Your task to perform on an android device: stop showing notifications on the lock screen Image 0: 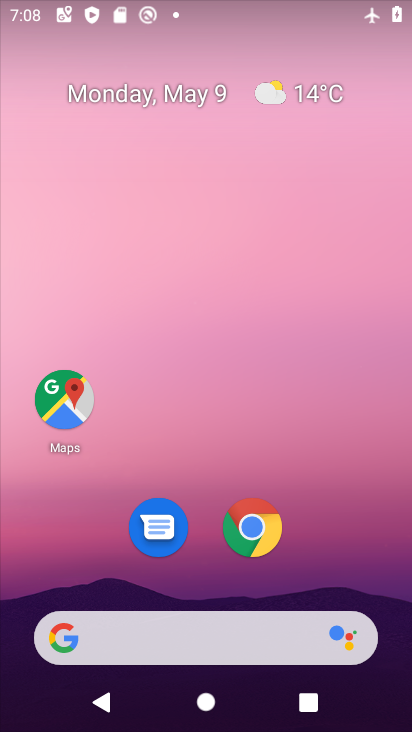
Step 0: drag from (325, 581) to (254, 4)
Your task to perform on an android device: stop showing notifications on the lock screen Image 1: 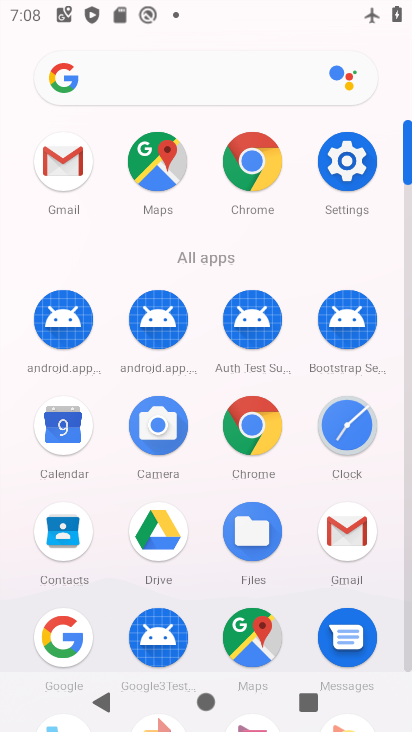
Step 1: click (349, 160)
Your task to perform on an android device: stop showing notifications on the lock screen Image 2: 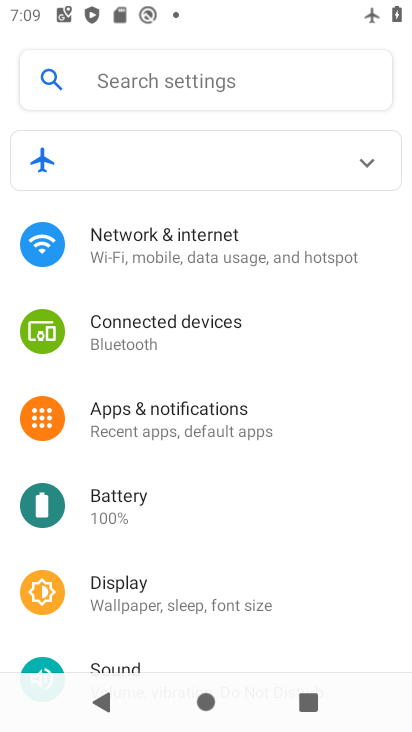
Step 2: click (171, 416)
Your task to perform on an android device: stop showing notifications on the lock screen Image 3: 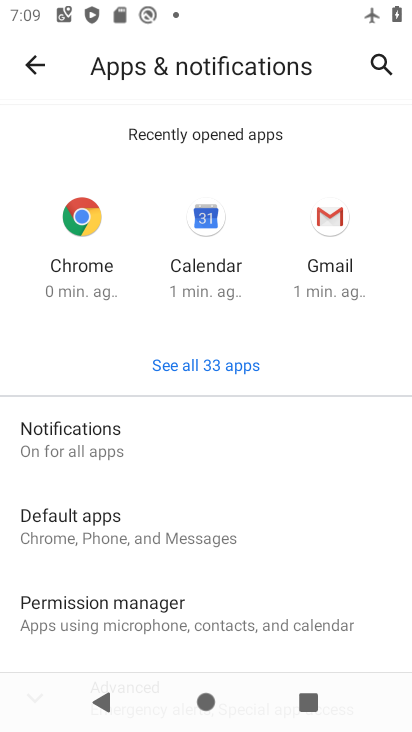
Step 3: click (97, 425)
Your task to perform on an android device: stop showing notifications on the lock screen Image 4: 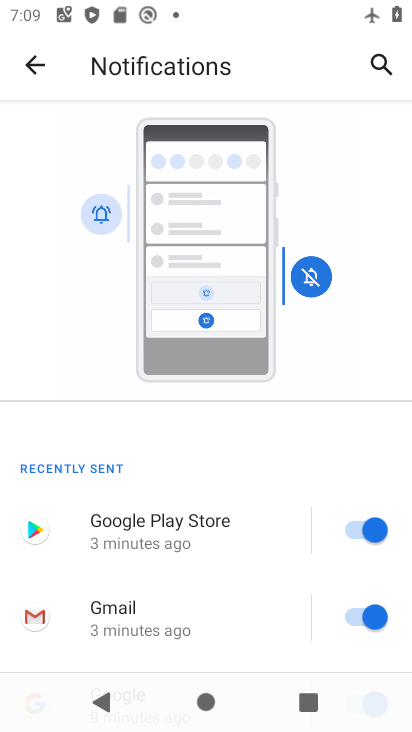
Step 4: drag from (180, 572) to (216, 439)
Your task to perform on an android device: stop showing notifications on the lock screen Image 5: 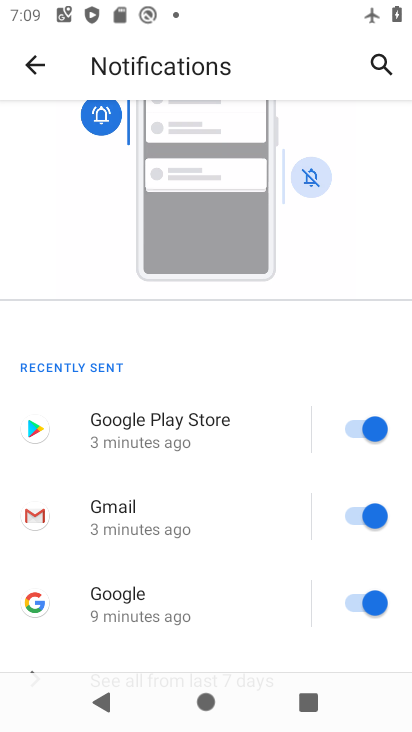
Step 5: drag from (176, 584) to (211, 445)
Your task to perform on an android device: stop showing notifications on the lock screen Image 6: 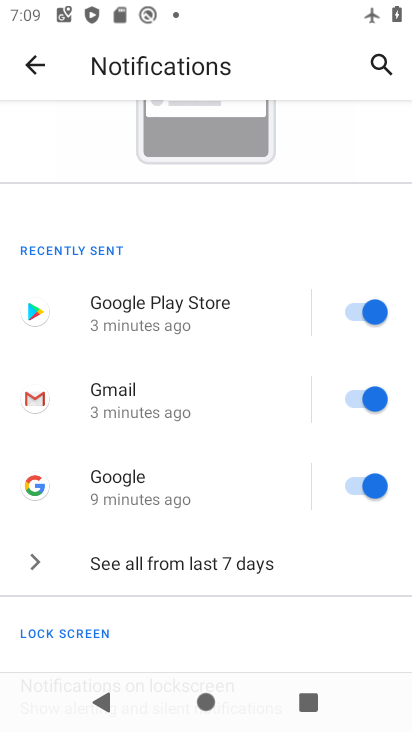
Step 6: drag from (154, 621) to (186, 507)
Your task to perform on an android device: stop showing notifications on the lock screen Image 7: 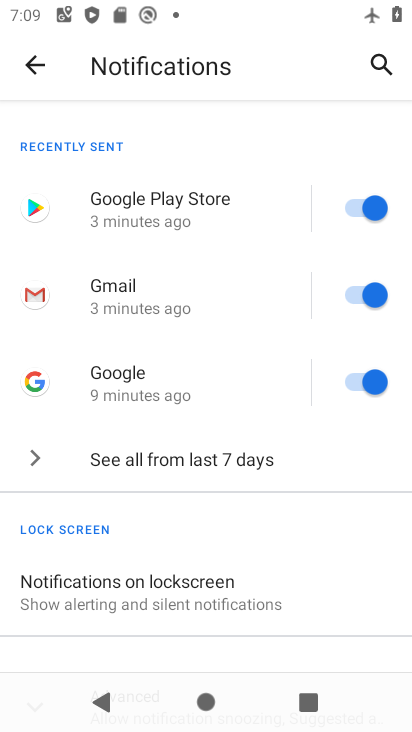
Step 7: click (128, 579)
Your task to perform on an android device: stop showing notifications on the lock screen Image 8: 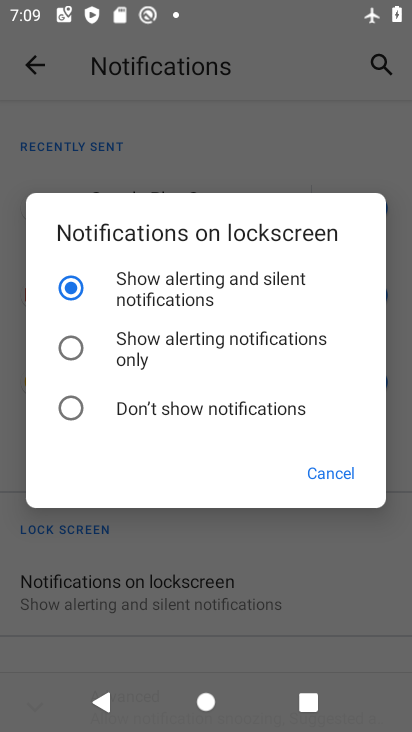
Step 8: click (65, 412)
Your task to perform on an android device: stop showing notifications on the lock screen Image 9: 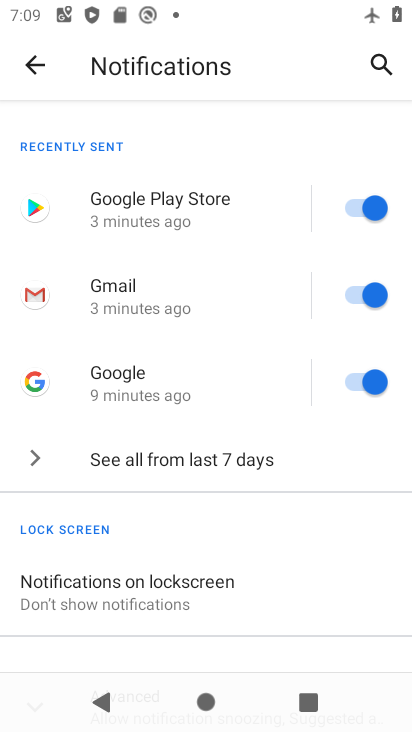
Step 9: task complete